Your task to perform on an android device: Open Chrome and go to the settings page Image 0: 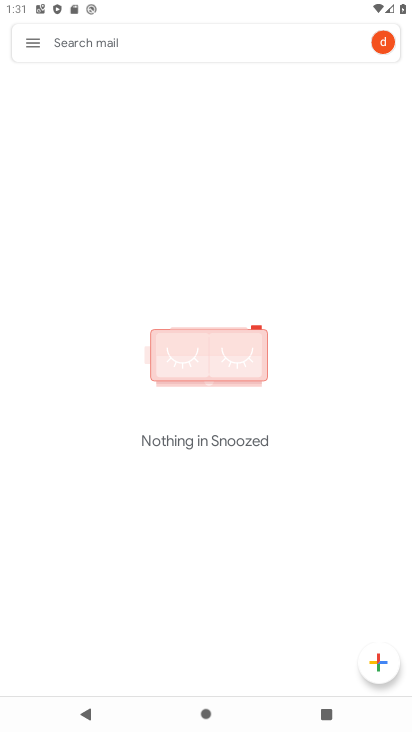
Step 0: press home button
Your task to perform on an android device: Open Chrome and go to the settings page Image 1: 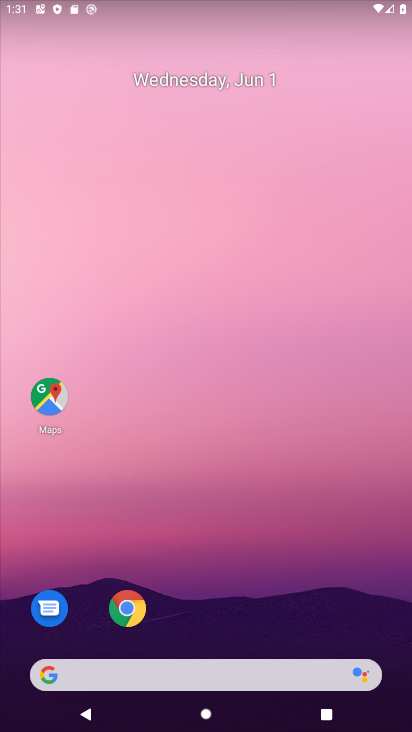
Step 1: click (121, 606)
Your task to perform on an android device: Open Chrome and go to the settings page Image 2: 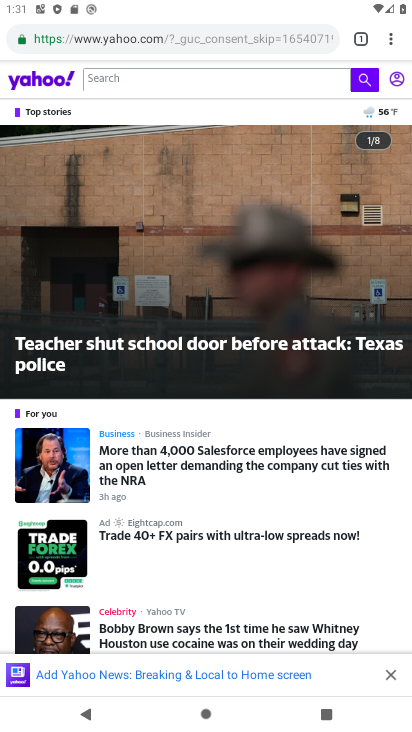
Step 2: click (392, 46)
Your task to perform on an android device: Open Chrome and go to the settings page Image 3: 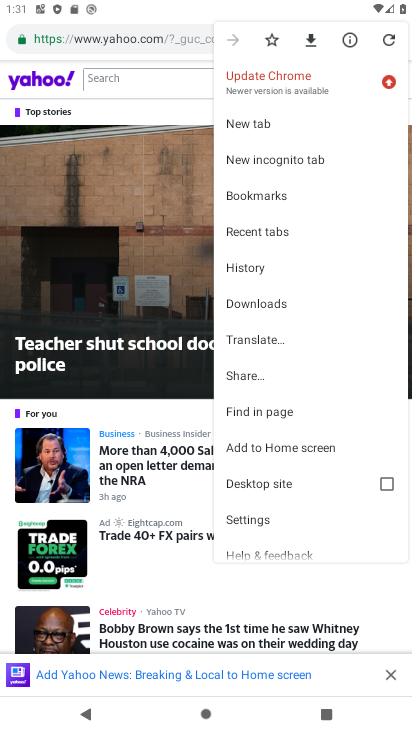
Step 3: click (243, 524)
Your task to perform on an android device: Open Chrome and go to the settings page Image 4: 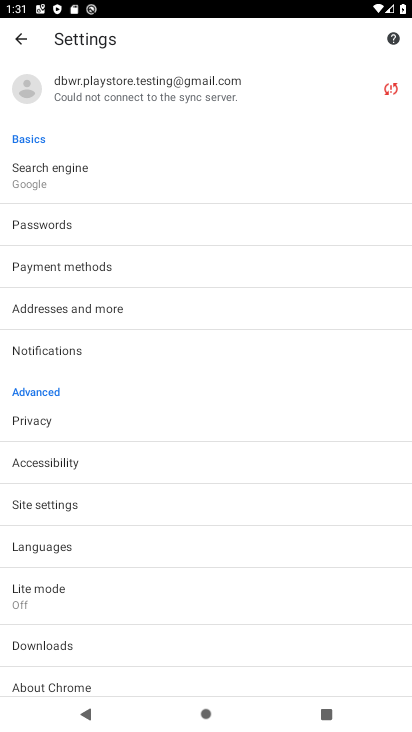
Step 4: task complete